Your task to perform on an android device: turn on location history Image 0: 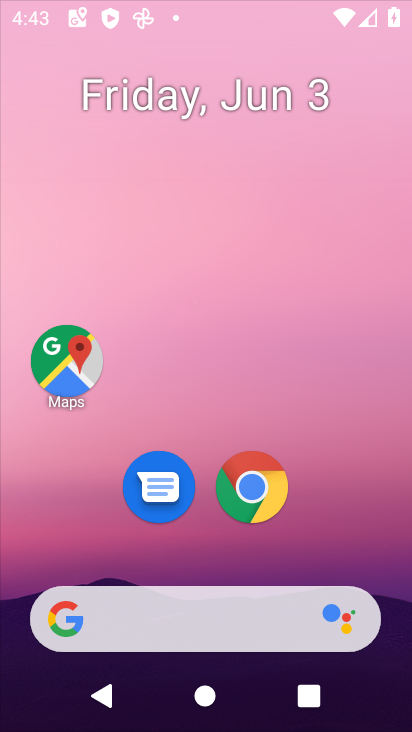
Step 0: drag from (203, 194) to (241, 210)
Your task to perform on an android device: turn on location history Image 1: 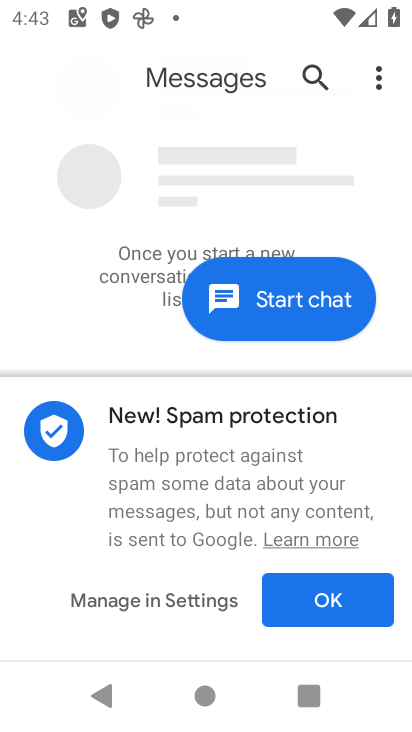
Step 1: drag from (247, 350) to (289, 162)
Your task to perform on an android device: turn on location history Image 2: 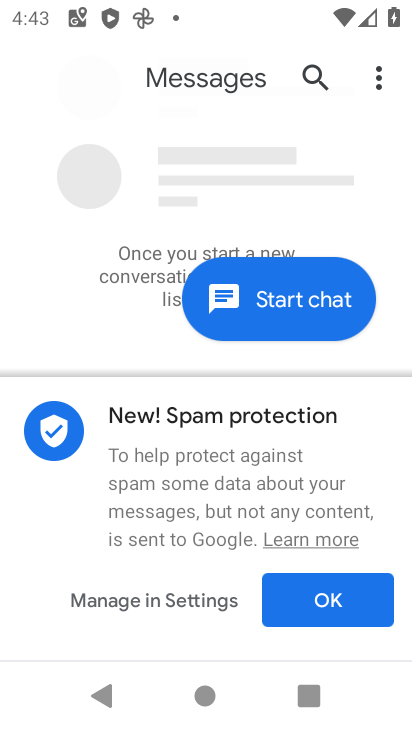
Step 2: click (328, 600)
Your task to perform on an android device: turn on location history Image 3: 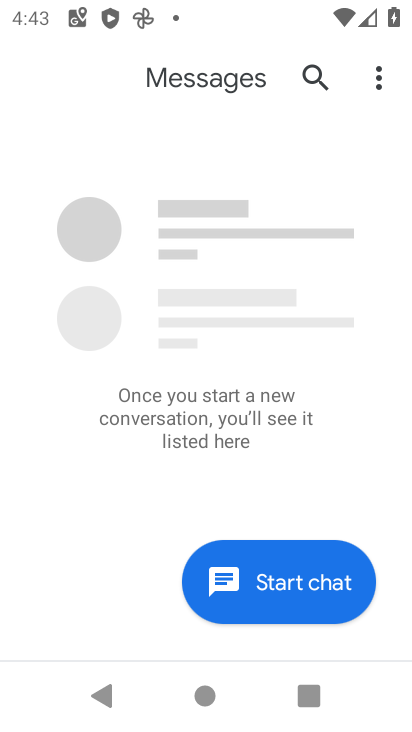
Step 3: press home button
Your task to perform on an android device: turn on location history Image 4: 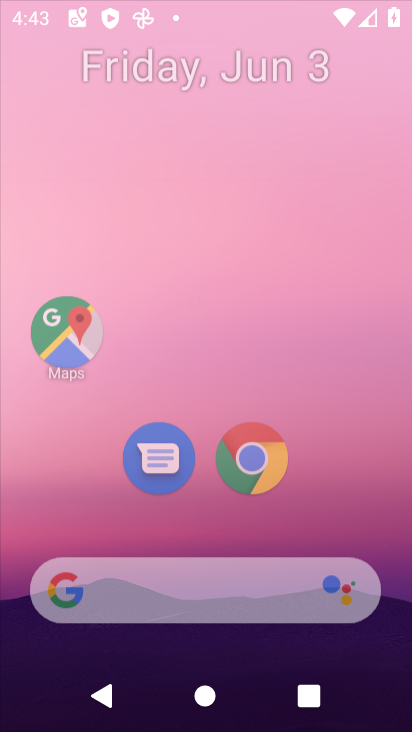
Step 4: drag from (128, 582) to (177, 129)
Your task to perform on an android device: turn on location history Image 5: 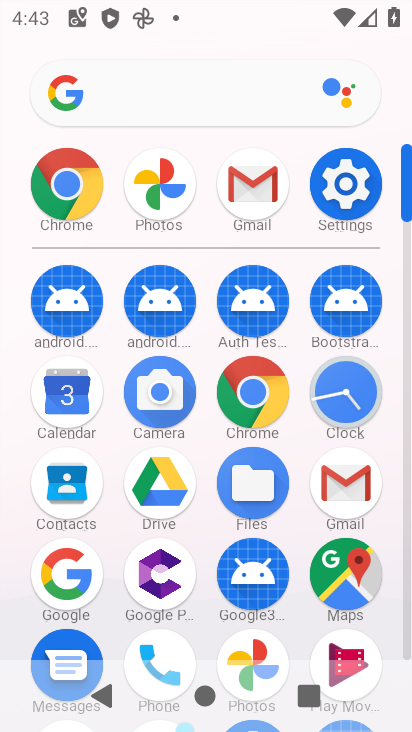
Step 5: click (343, 184)
Your task to perform on an android device: turn on location history Image 6: 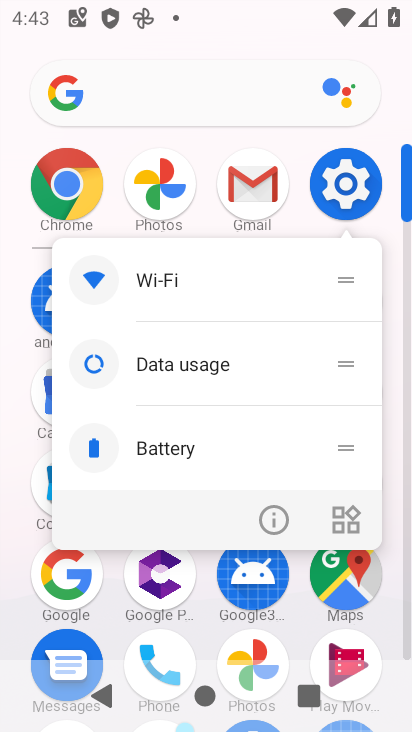
Step 6: click (267, 524)
Your task to perform on an android device: turn on location history Image 7: 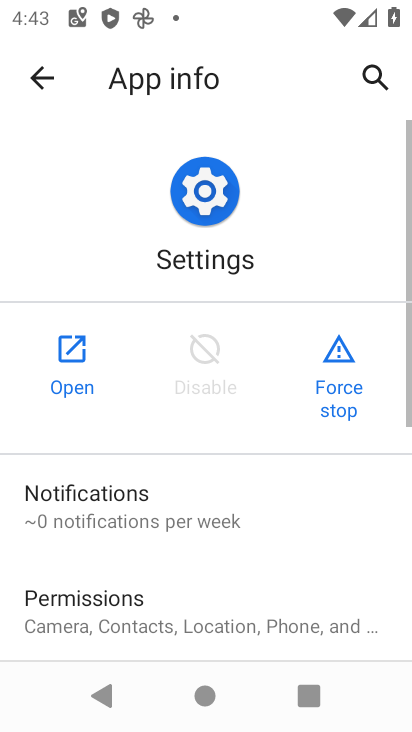
Step 7: click (76, 336)
Your task to perform on an android device: turn on location history Image 8: 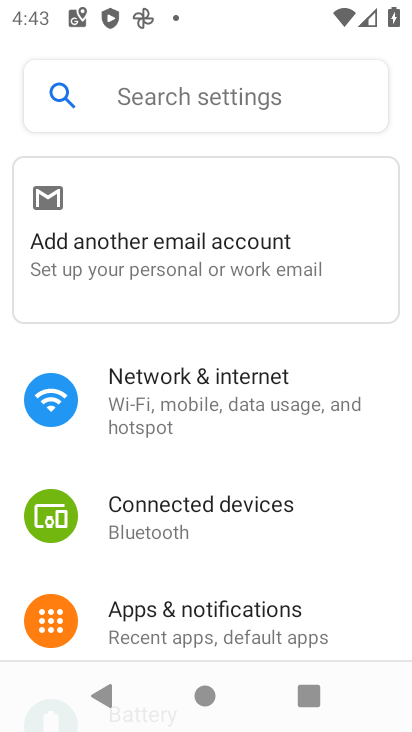
Step 8: drag from (269, 619) to (382, 0)
Your task to perform on an android device: turn on location history Image 9: 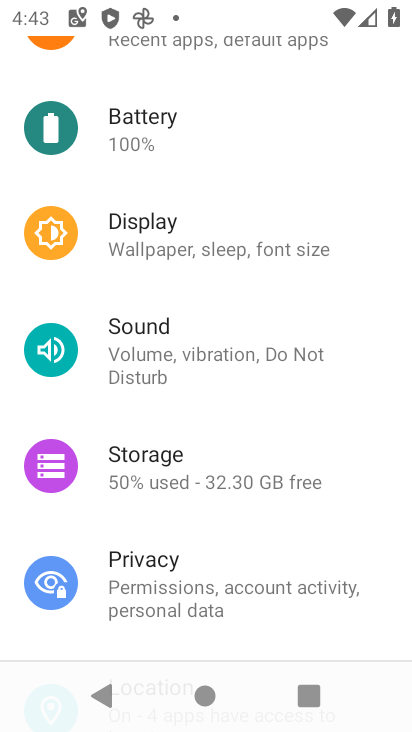
Step 9: drag from (202, 497) to (282, 87)
Your task to perform on an android device: turn on location history Image 10: 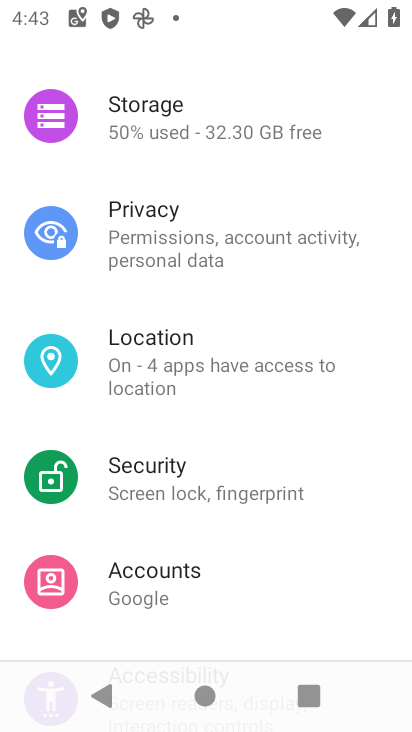
Step 10: click (253, 177)
Your task to perform on an android device: turn on location history Image 11: 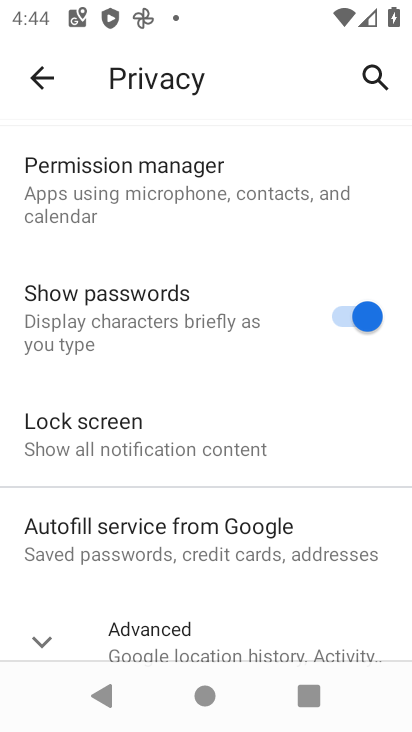
Step 11: drag from (175, 523) to (211, 298)
Your task to perform on an android device: turn on location history Image 12: 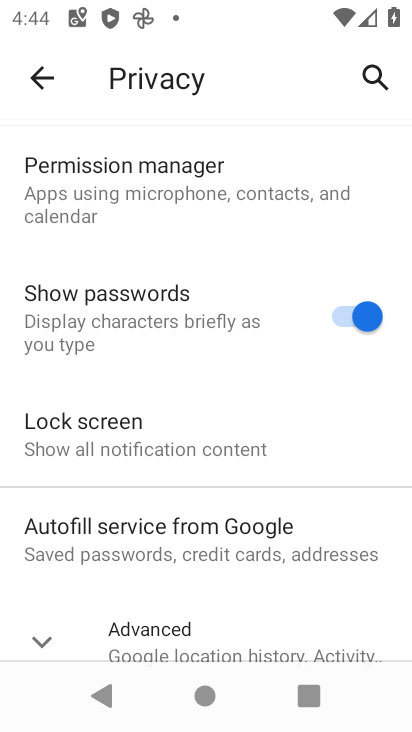
Step 12: click (152, 634)
Your task to perform on an android device: turn on location history Image 13: 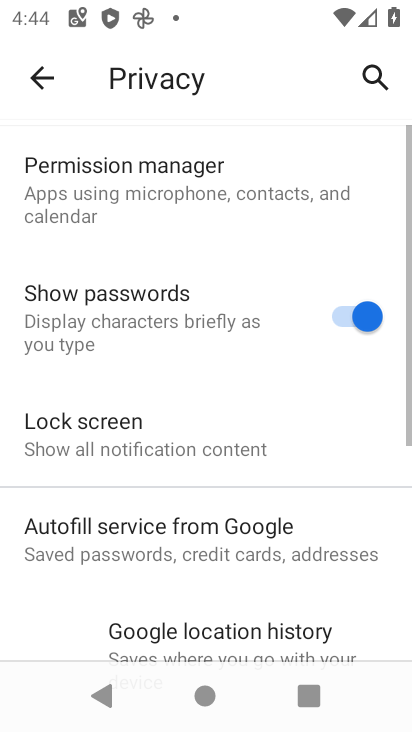
Step 13: drag from (182, 611) to (299, 114)
Your task to perform on an android device: turn on location history Image 14: 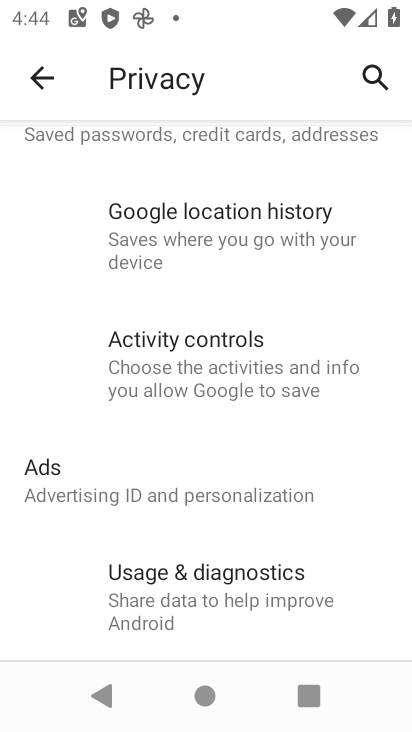
Step 14: click (290, 224)
Your task to perform on an android device: turn on location history Image 15: 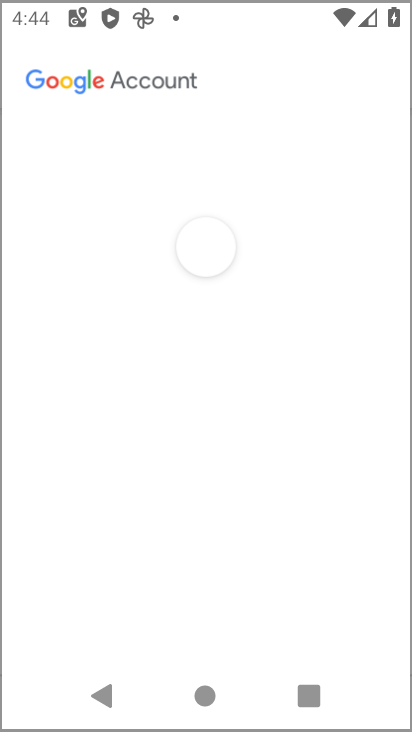
Step 15: click (212, 259)
Your task to perform on an android device: turn on location history Image 16: 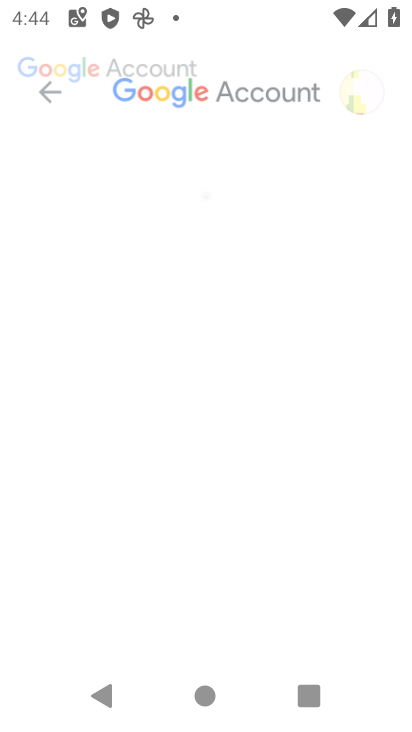
Step 16: drag from (216, 523) to (262, 293)
Your task to perform on an android device: turn on location history Image 17: 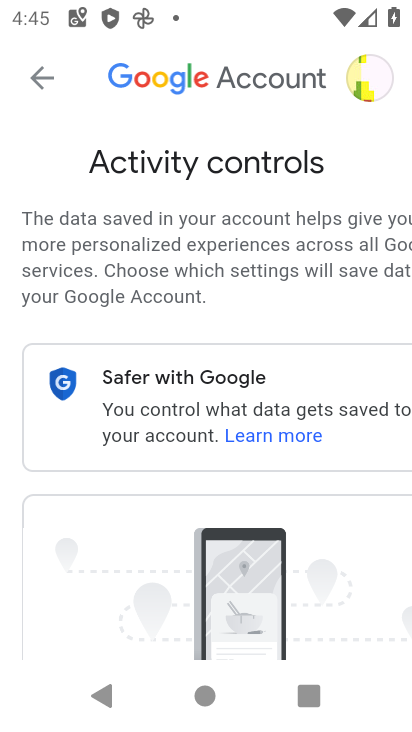
Step 17: drag from (181, 585) to (218, 174)
Your task to perform on an android device: turn on location history Image 18: 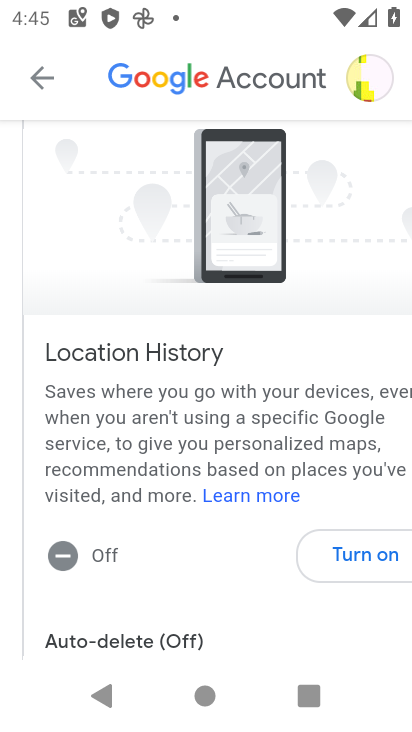
Step 18: drag from (244, 529) to (321, 127)
Your task to perform on an android device: turn on location history Image 19: 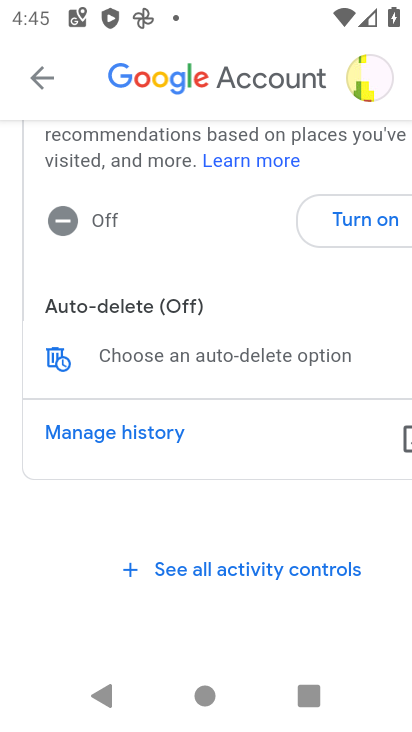
Step 19: click (365, 218)
Your task to perform on an android device: turn on location history Image 20: 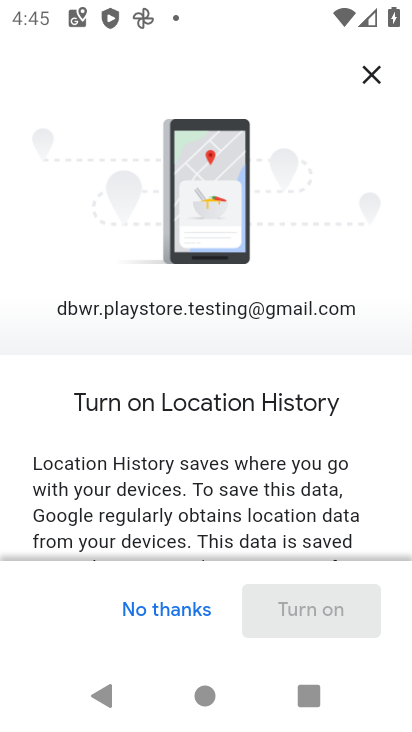
Step 20: drag from (203, 527) to (231, 151)
Your task to perform on an android device: turn on location history Image 21: 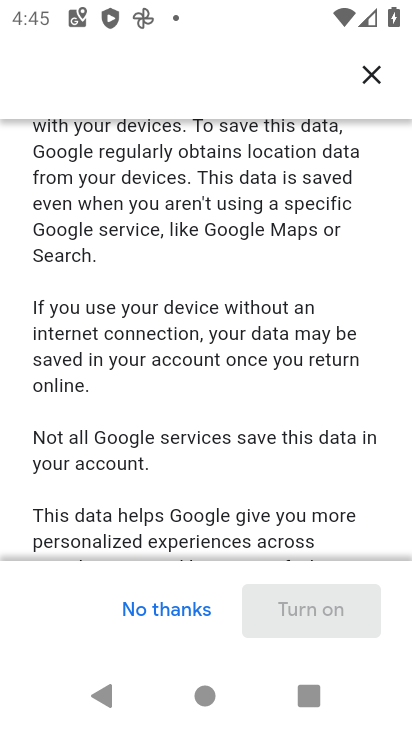
Step 21: drag from (184, 496) to (323, 0)
Your task to perform on an android device: turn on location history Image 22: 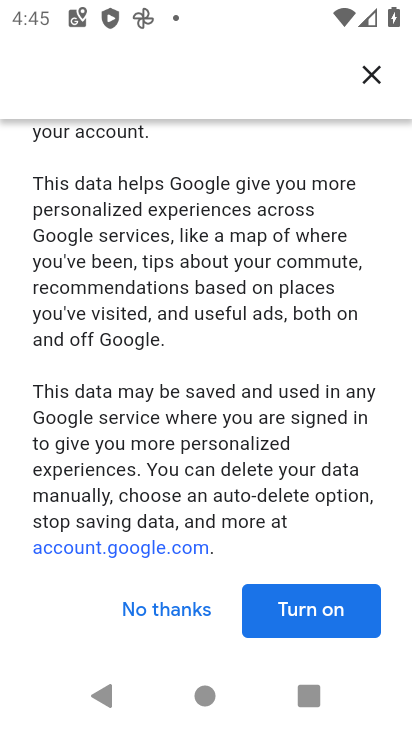
Step 22: drag from (251, 494) to (306, 155)
Your task to perform on an android device: turn on location history Image 23: 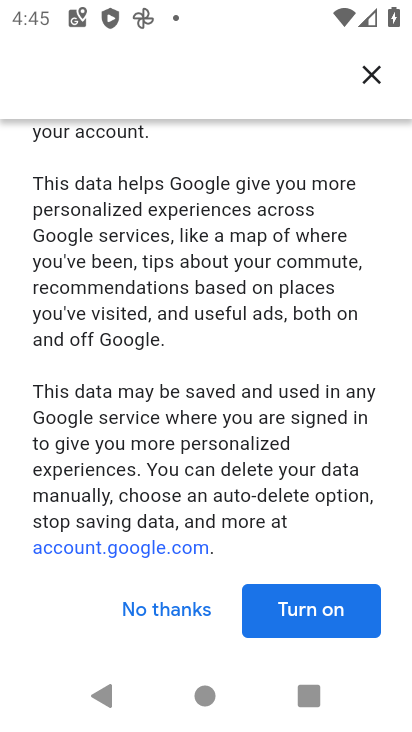
Step 23: drag from (198, 439) to (268, 159)
Your task to perform on an android device: turn on location history Image 24: 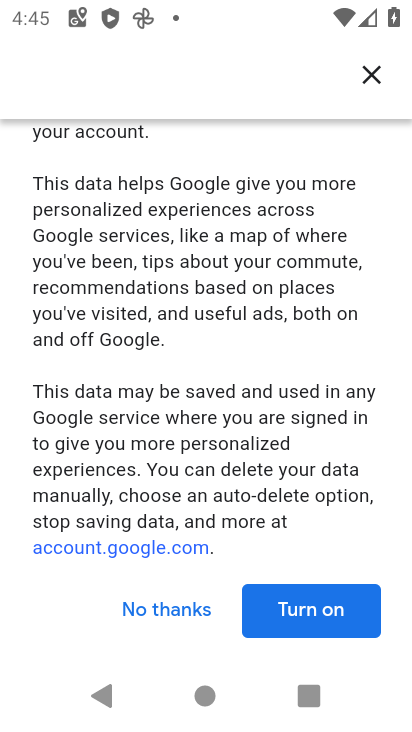
Step 24: click (308, 603)
Your task to perform on an android device: turn on location history Image 25: 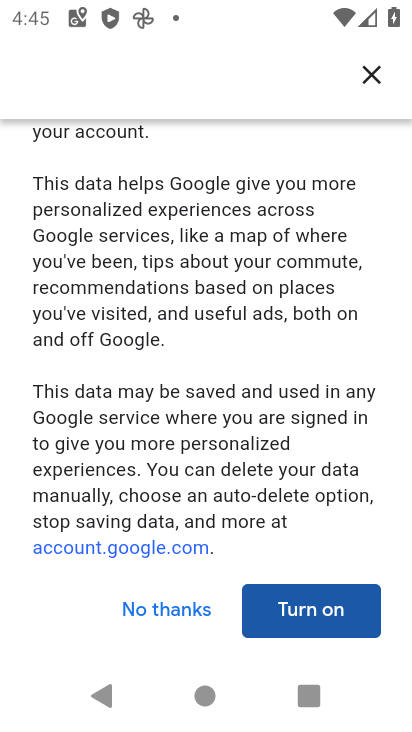
Step 25: drag from (249, 498) to (329, 6)
Your task to perform on an android device: turn on location history Image 26: 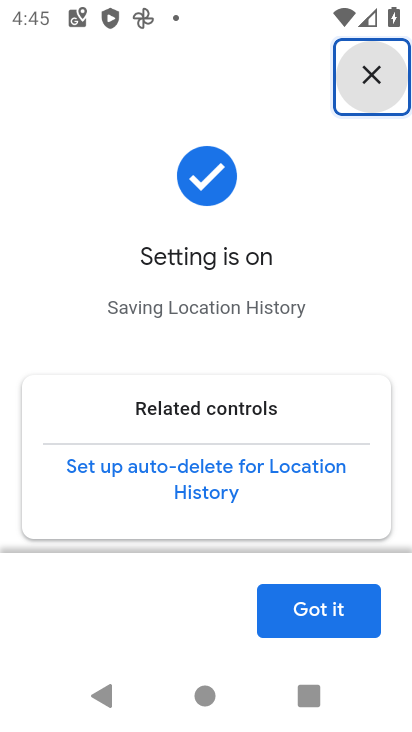
Step 26: click (305, 588)
Your task to perform on an android device: turn on location history Image 27: 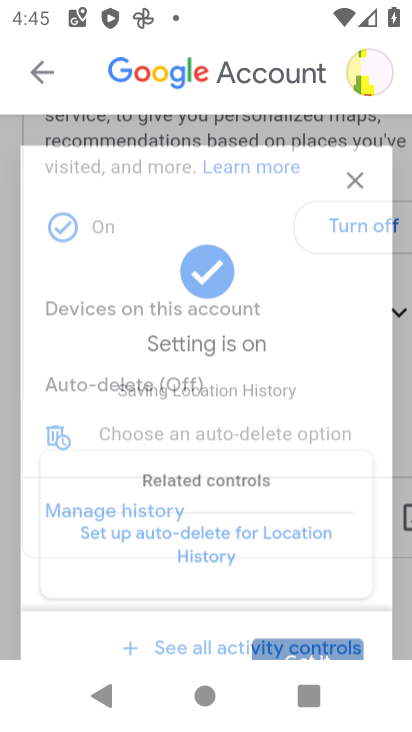
Step 27: task complete